Your task to perform on an android device: install app "Facebook Lite" Image 0: 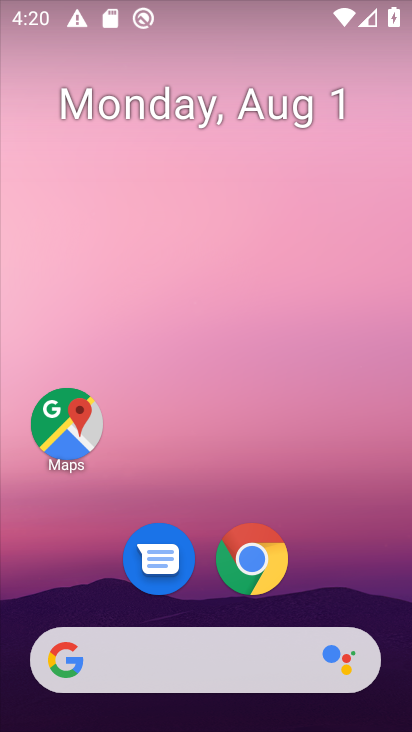
Step 0: drag from (217, 589) to (238, 1)
Your task to perform on an android device: install app "Facebook Lite" Image 1: 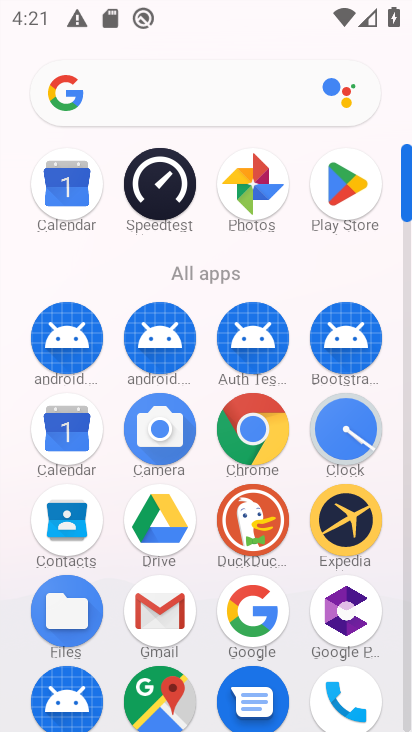
Step 1: click (341, 200)
Your task to perform on an android device: install app "Facebook Lite" Image 2: 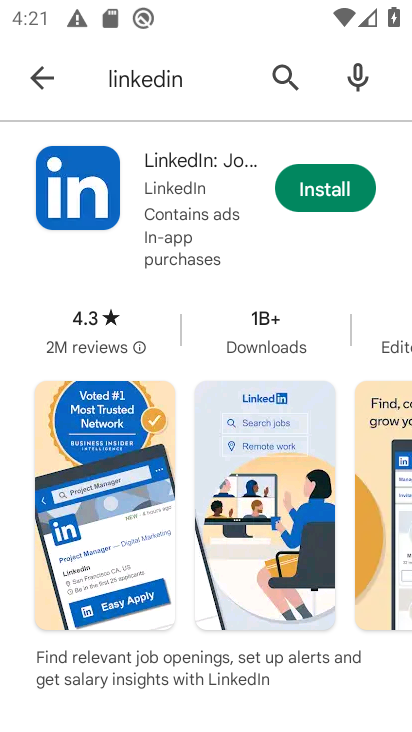
Step 2: click (149, 91)
Your task to perform on an android device: install app "Facebook Lite" Image 3: 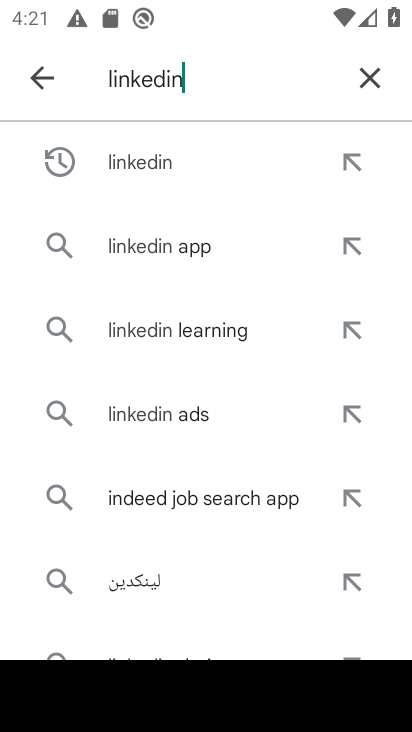
Step 3: click (366, 80)
Your task to perform on an android device: install app "Facebook Lite" Image 4: 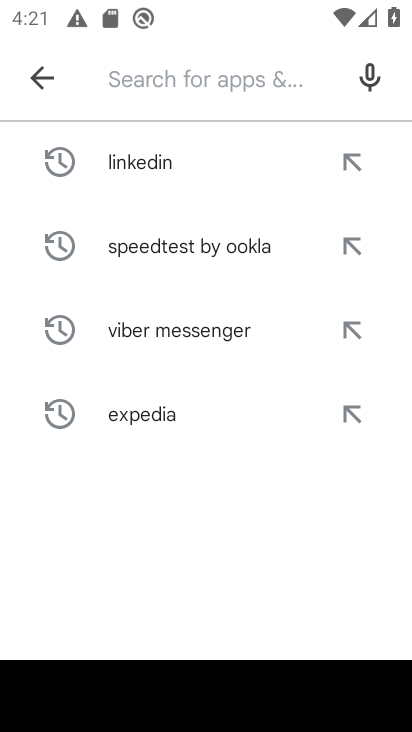
Step 4: type "facebook lite"
Your task to perform on an android device: install app "Facebook Lite" Image 5: 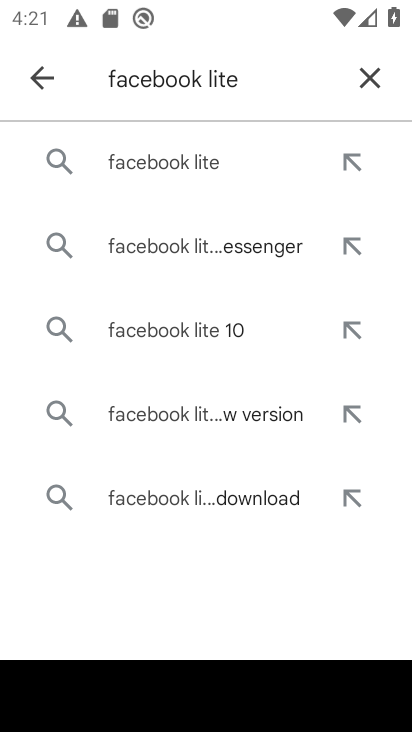
Step 5: click (145, 157)
Your task to perform on an android device: install app "Facebook Lite" Image 6: 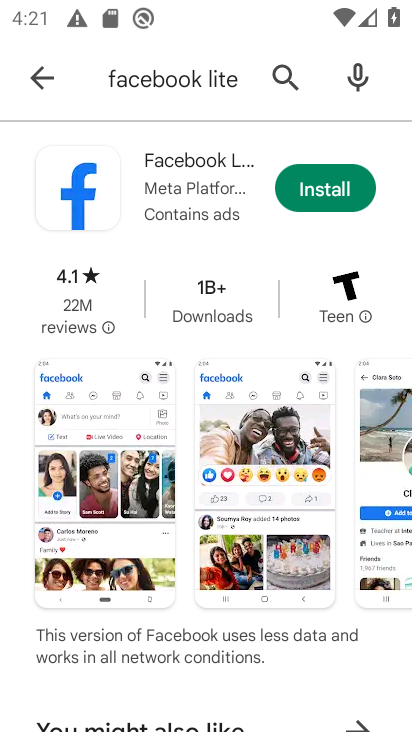
Step 6: click (321, 193)
Your task to perform on an android device: install app "Facebook Lite" Image 7: 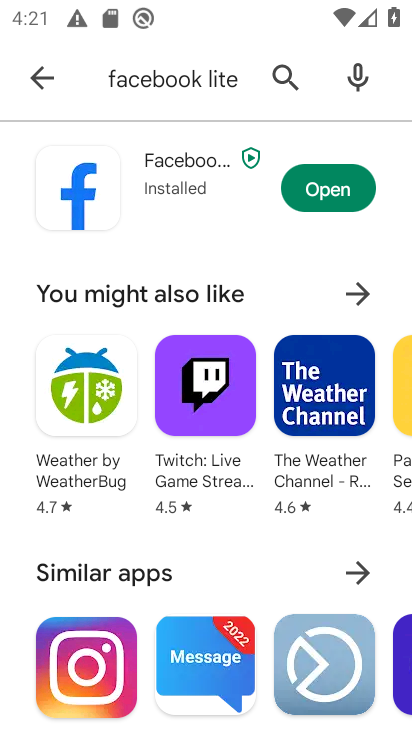
Step 7: task complete